Your task to perform on an android device: read, delete, or share a saved page in the chrome app Image 0: 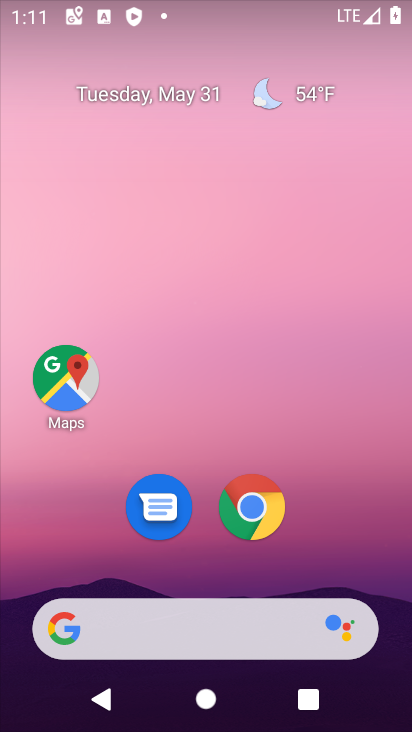
Step 0: drag from (389, 626) to (259, 62)
Your task to perform on an android device: read, delete, or share a saved page in the chrome app Image 1: 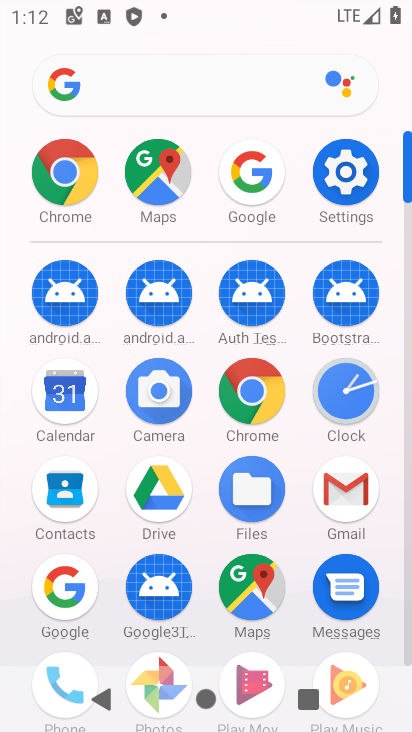
Step 1: click (62, 175)
Your task to perform on an android device: read, delete, or share a saved page in the chrome app Image 2: 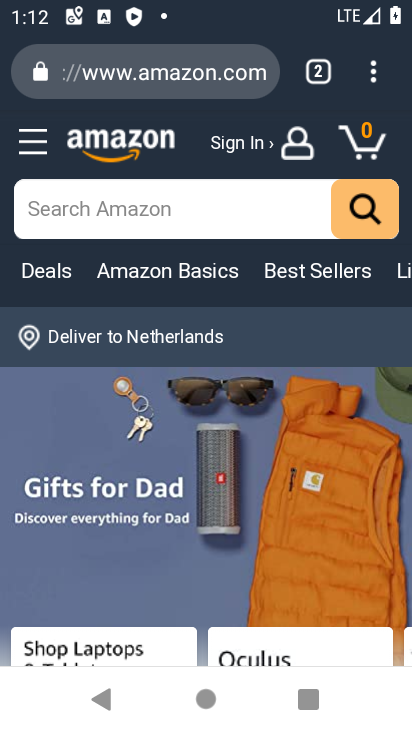
Step 2: task complete